Your task to perform on an android device: change alarm snooze length Image 0: 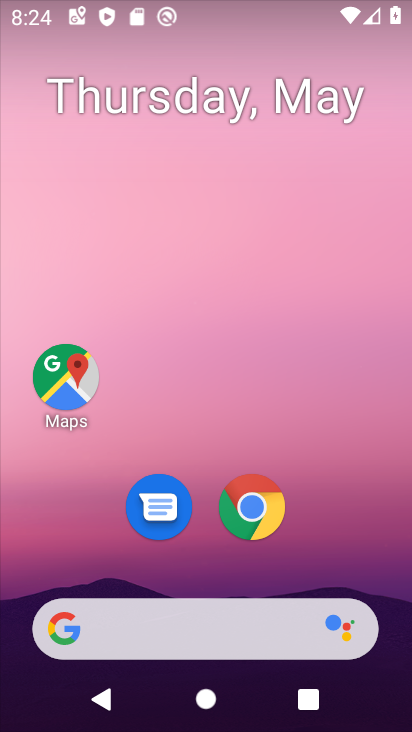
Step 0: drag from (188, 656) to (222, 250)
Your task to perform on an android device: change alarm snooze length Image 1: 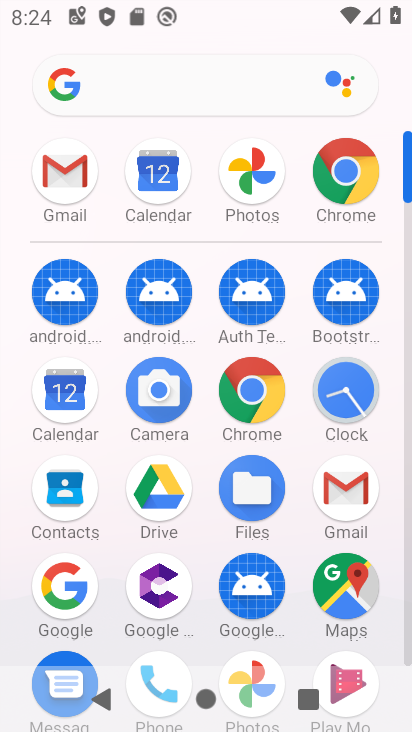
Step 1: click (318, 400)
Your task to perform on an android device: change alarm snooze length Image 2: 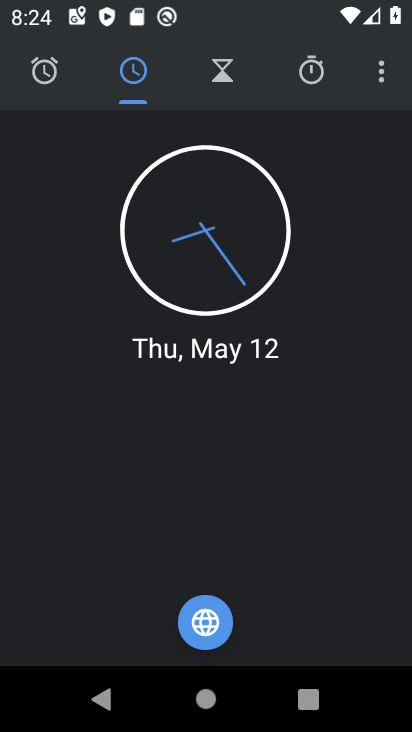
Step 2: click (374, 87)
Your task to perform on an android device: change alarm snooze length Image 3: 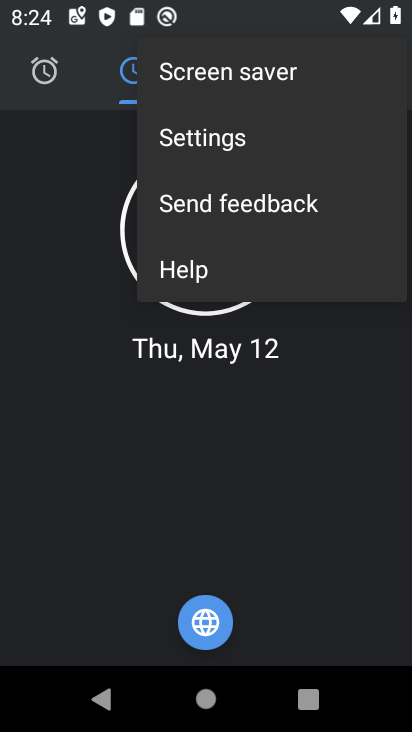
Step 3: click (253, 145)
Your task to perform on an android device: change alarm snooze length Image 4: 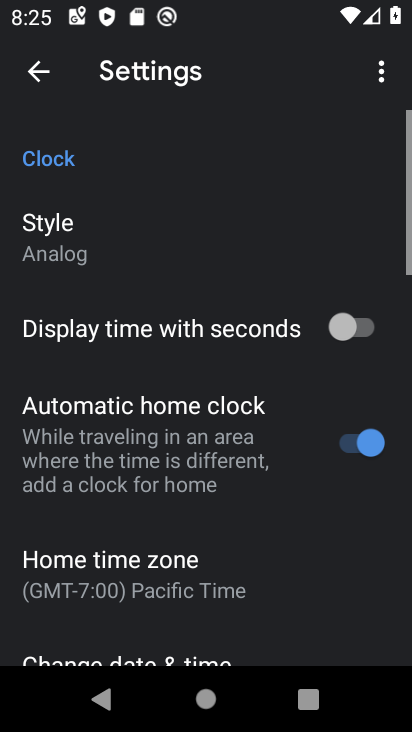
Step 4: drag from (192, 555) to (271, 131)
Your task to perform on an android device: change alarm snooze length Image 5: 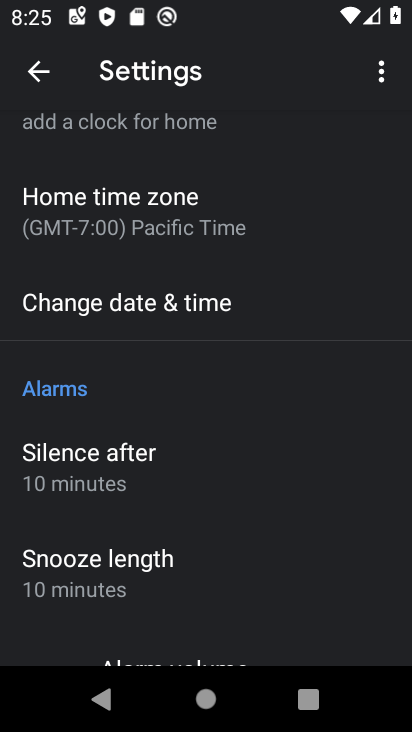
Step 5: click (91, 568)
Your task to perform on an android device: change alarm snooze length Image 6: 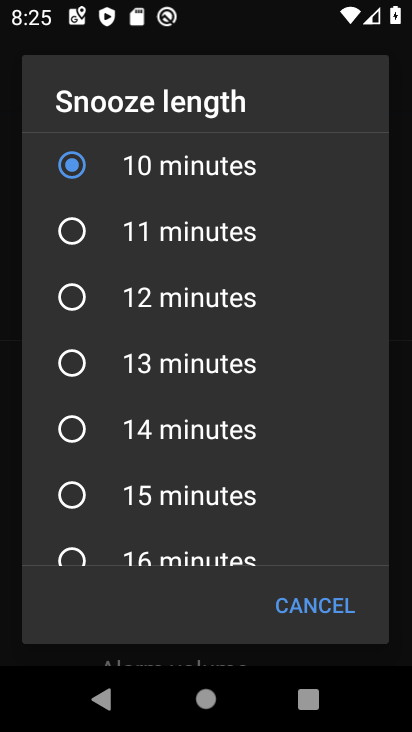
Step 6: click (178, 225)
Your task to perform on an android device: change alarm snooze length Image 7: 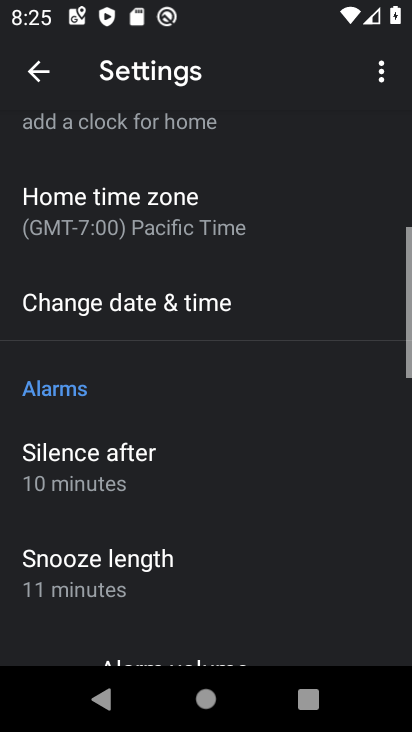
Step 7: task complete